Your task to perform on an android device: stop showing notifications on the lock screen Image 0: 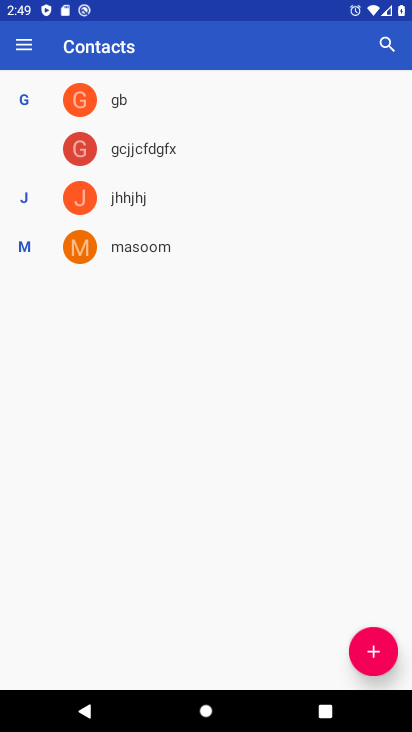
Step 0: press home button
Your task to perform on an android device: stop showing notifications on the lock screen Image 1: 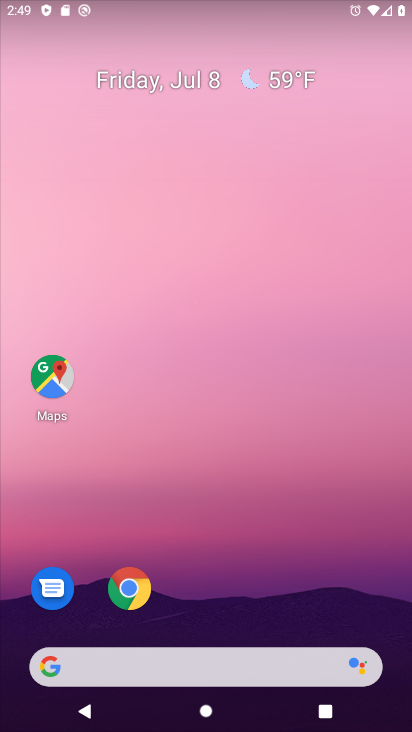
Step 1: drag from (202, 619) to (277, 16)
Your task to perform on an android device: stop showing notifications on the lock screen Image 2: 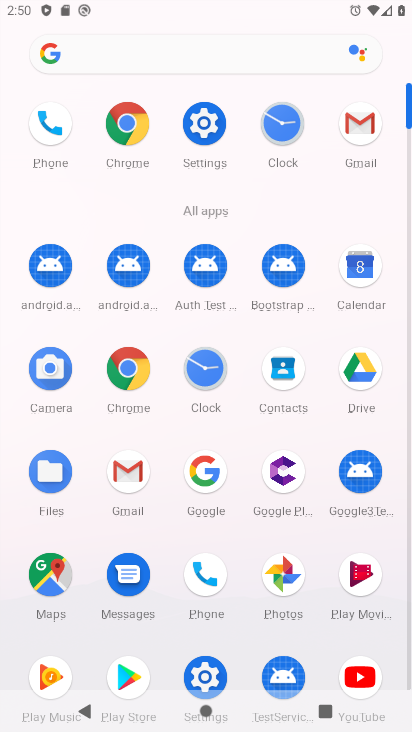
Step 2: click (207, 665)
Your task to perform on an android device: stop showing notifications on the lock screen Image 3: 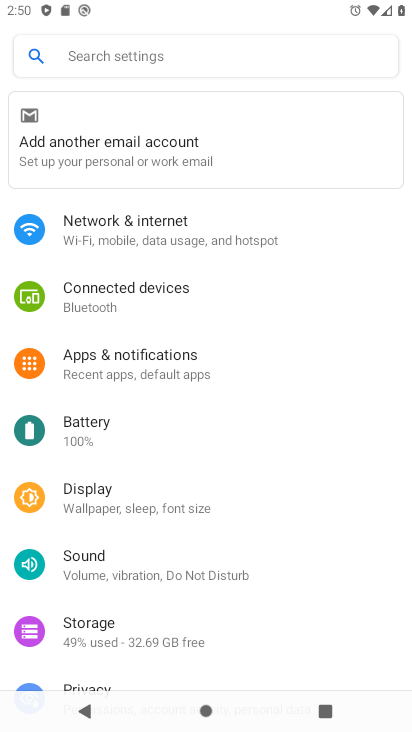
Step 3: click (181, 369)
Your task to perform on an android device: stop showing notifications on the lock screen Image 4: 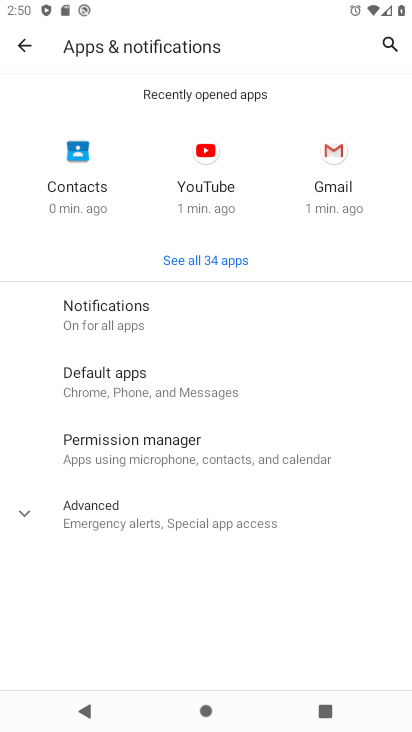
Step 4: click (145, 303)
Your task to perform on an android device: stop showing notifications on the lock screen Image 5: 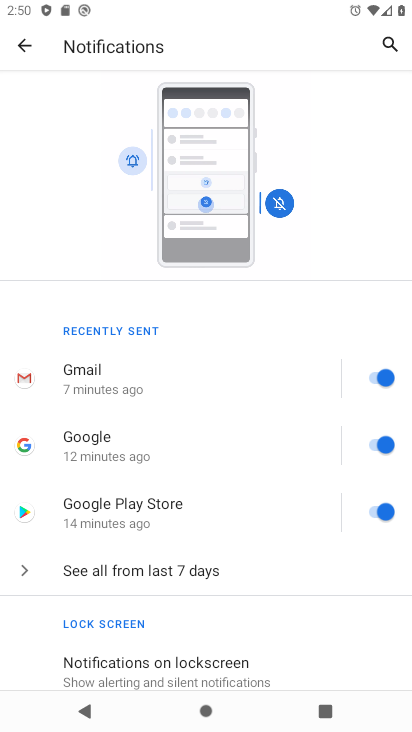
Step 5: drag from (204, 637) to (204, 482)
Your task to perform on an android device: stop showing notifications on the lock screen Image 6: 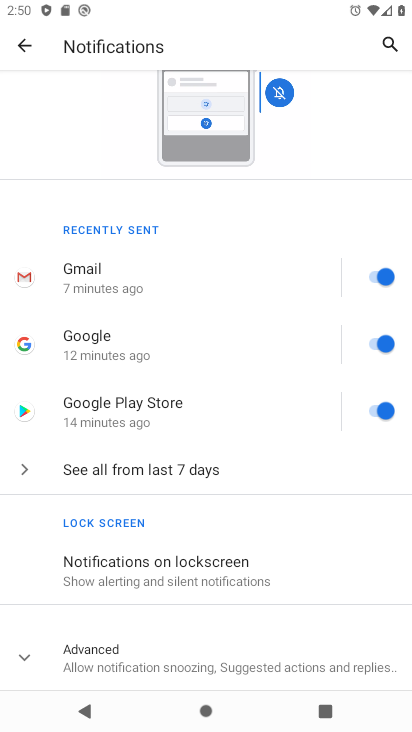
Step 6: click (171, 578)
Your task to perform on an android device: stop showing notifications on the lock screen Image 7: 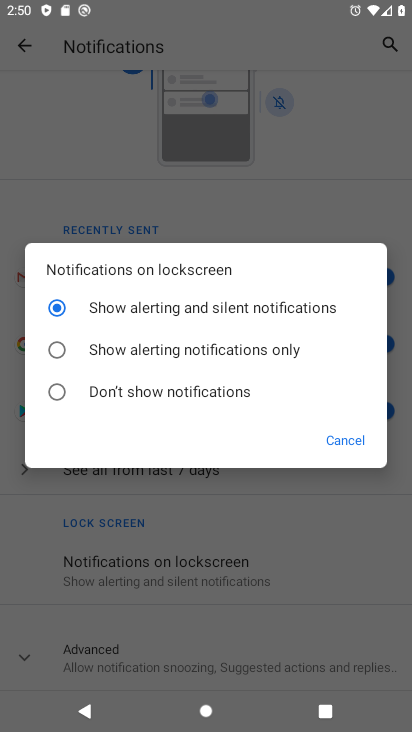
Step 7: click (186, 399)
Your task to perform on an android device: stop showing notifications on the lock screen Image 8: 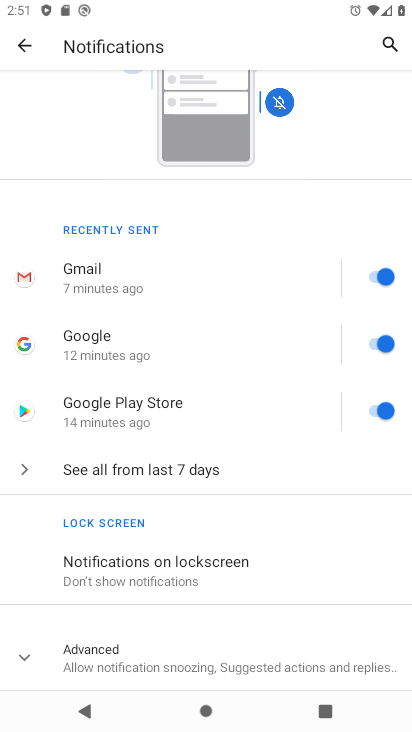
Step 8: task complete